Your task to perform on an android device: see tabs open on other devices in the chrome app Image 0: 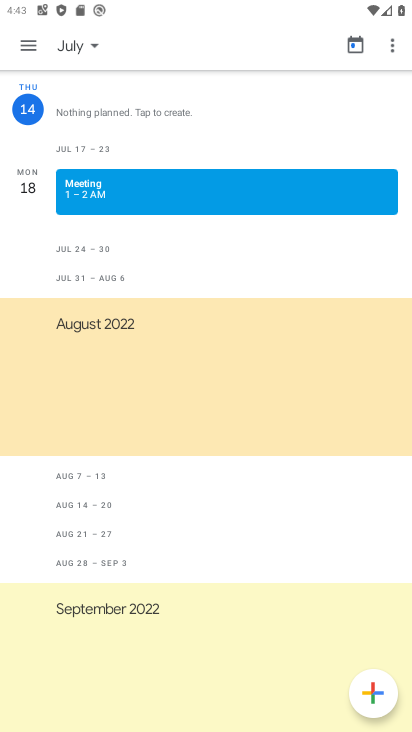
Step 0: press home button
Your task to perform on an android device: see tabs open on other devices in the chrome app Image 1: 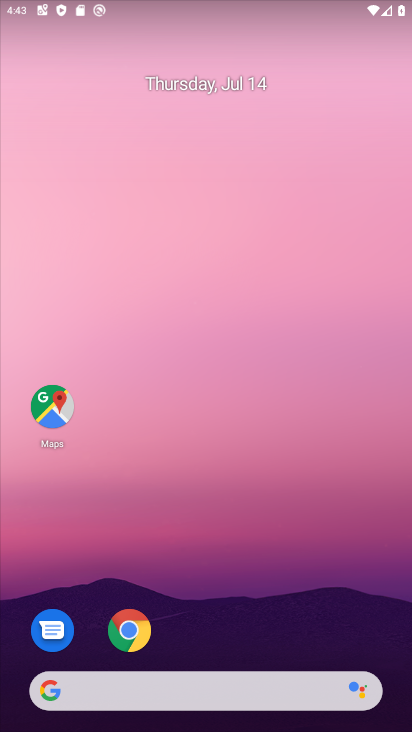
Step 1: click (143, 620)
Your task to perform on an android device: see tabs open on other devices in the chrome app Image 2: 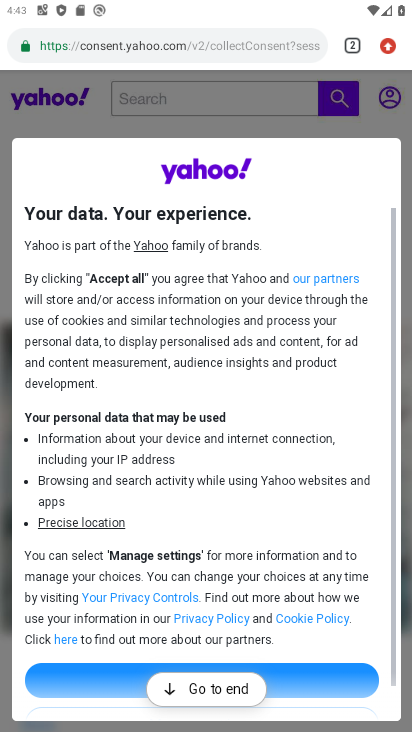
Step 2: click (389, 56)
Your task to perform on an android device: see tabs open on other devices in the chrome app Image 3: 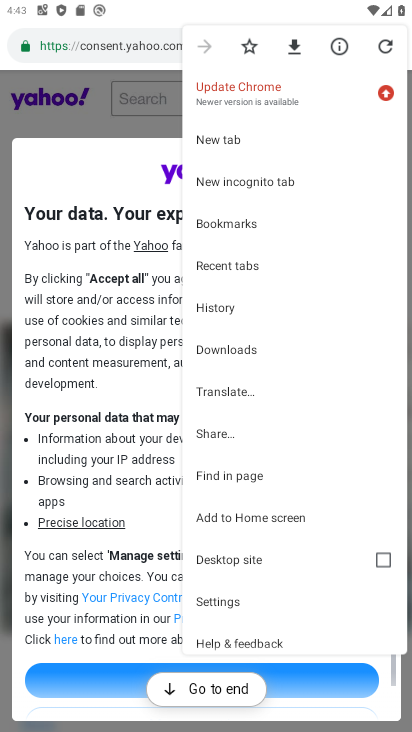
Step 3: click (283, 271)
Your task to perform on an android device: see tabs open on other devices in the chrome app Image 4: 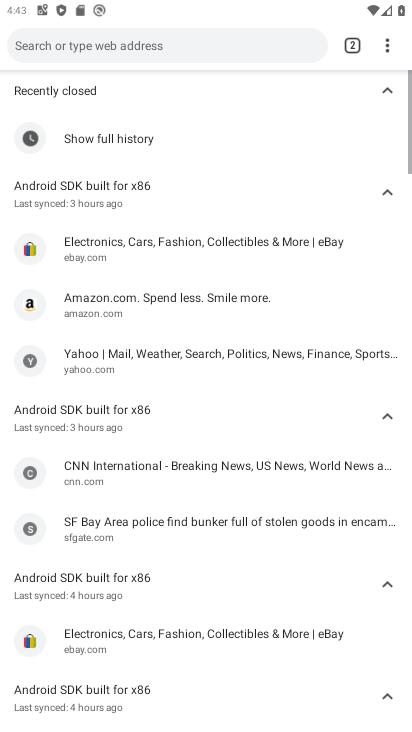
Step 4: task complete